Your task to perform on an android device: check the backup settings in the google photos Image 0: 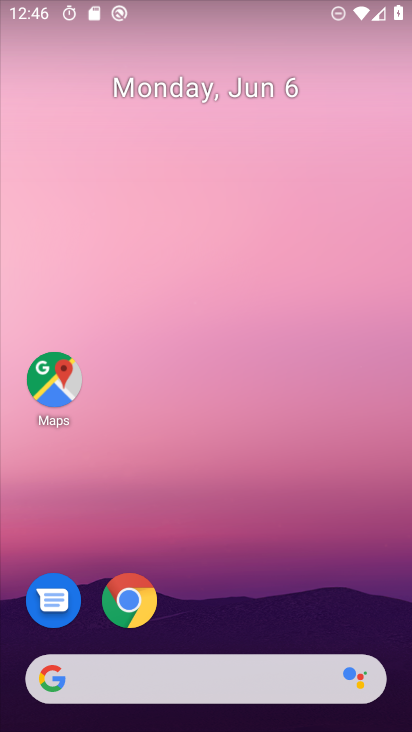
Step 0: drag from (206, 604) to (239, 218)
Your task to perform on an android device: check the backup settings in the google photos Image 1: 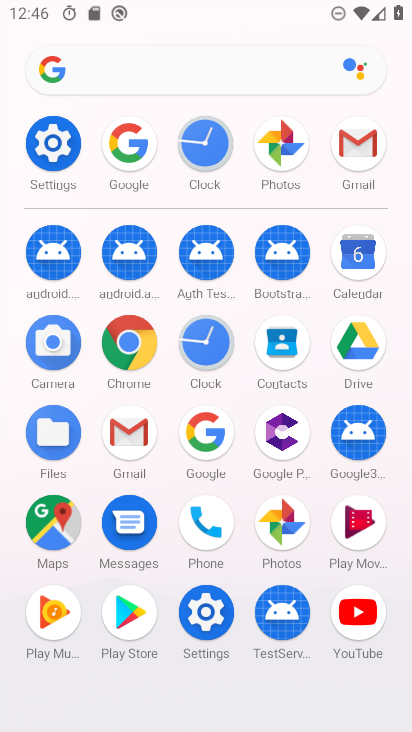
Step 1: click (292, 146)
Your task to perform on an android device: check the backup settings in the google photos Image 2: 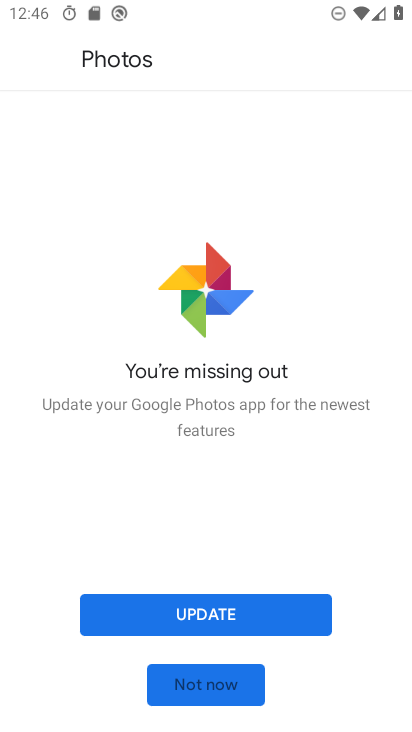
Step 2: click (222, 679)
Your task to perform on an android device: check the backup settings in the google photos Image 3: 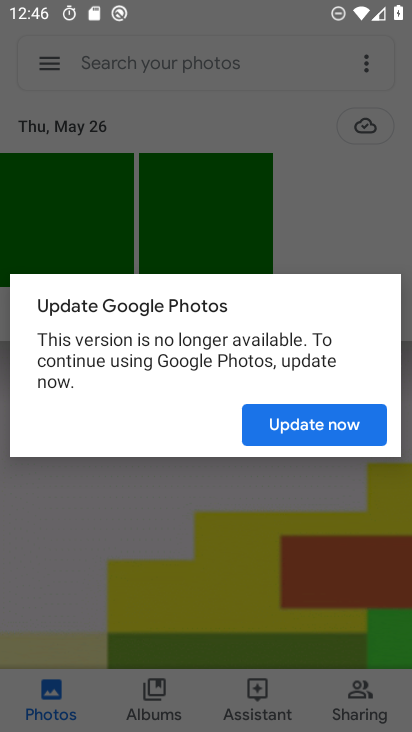
Step 3: click (292, 424)
Your task to perform on an android device: check the backup settings in the google photos Image 4: 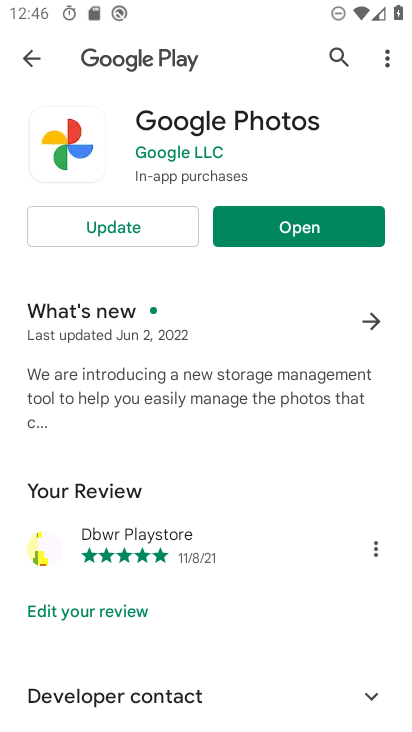
Step 4: click (251, 234)
Your task to perform on an android device: check the backup settings in the google photos Image 5: 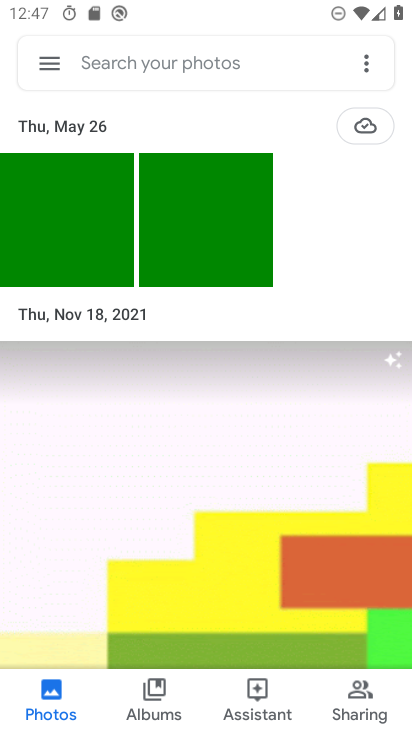
Step 5: click (52, 65)
Your task to perform on an android device: check the backup settings in the google photos Image 6: 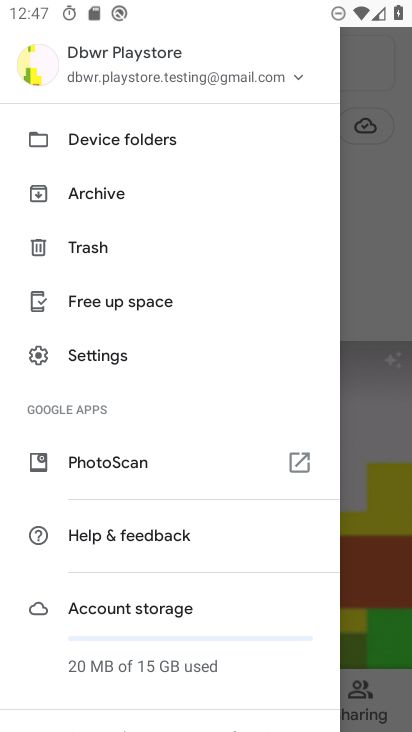
Step 6: drag from (160, 195) to (171, 518)
Your task to perform on an android device: check the backup settings in the google photos Image 7: 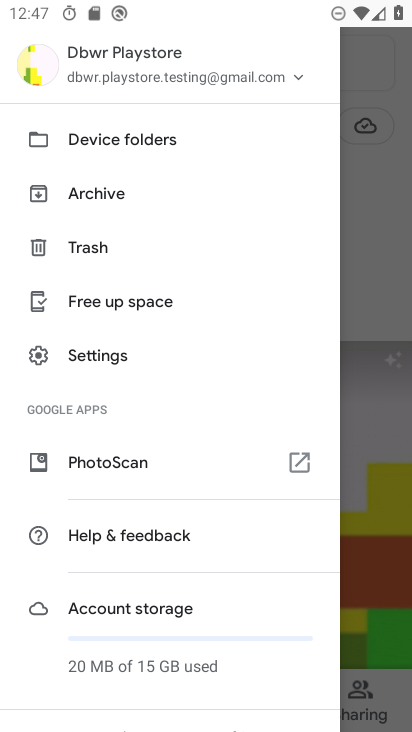
Step 7: click (114, 337)
Your task to perform on an android device: check the backup settings in the google photos Image 8: 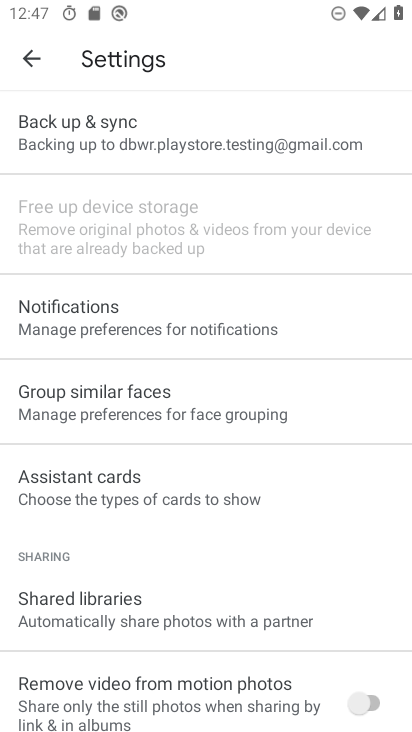
Step 8: click (140, 142)
Your task to perform on an android device: check the backup settings in the google photos Image 9: 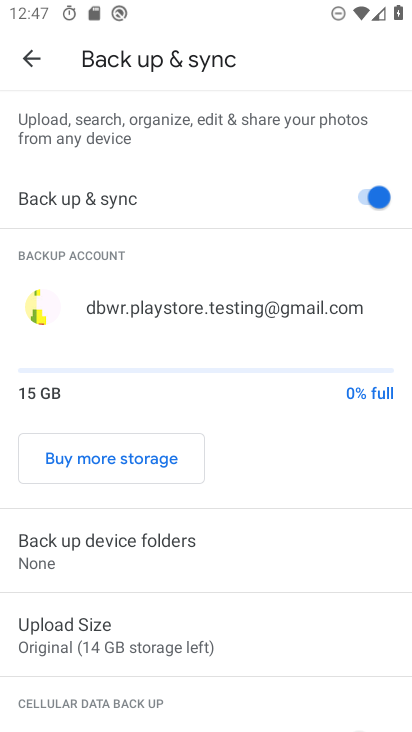
Step 9: task complete